Your task to perform on an android device: open sync settings in chrome Image 0: 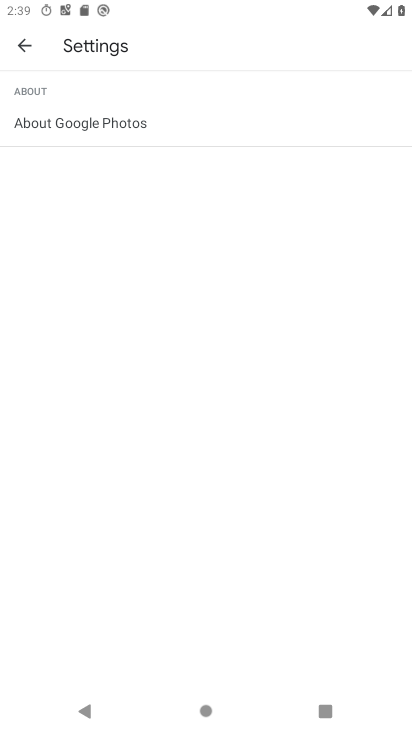
Step 0: press home button
Your task to perform on an android device: open sync settings in chrome Image 1: 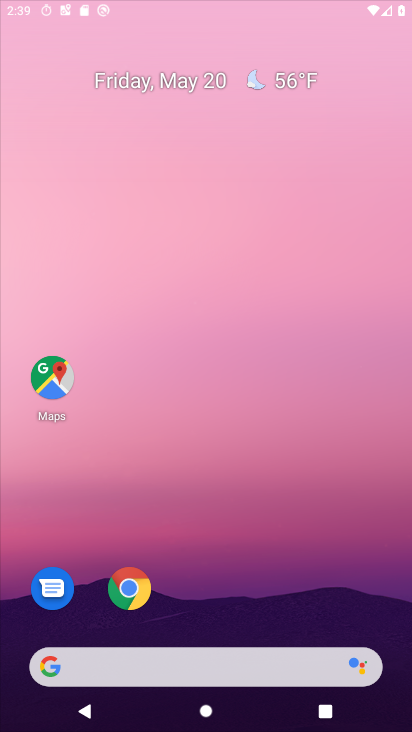
Step 1: click (400, 515)
Your task to perform on an android device: open sync settings in chrome Image 2: 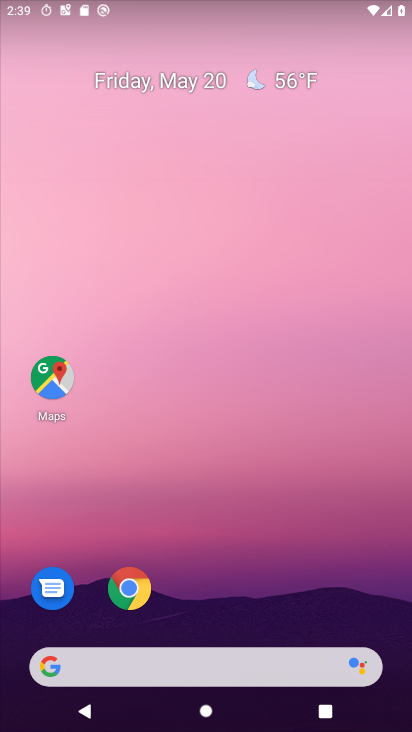
Step 2: click (132, 587)
Your task to perform on an android device: open sync settings in chrome Image 3: 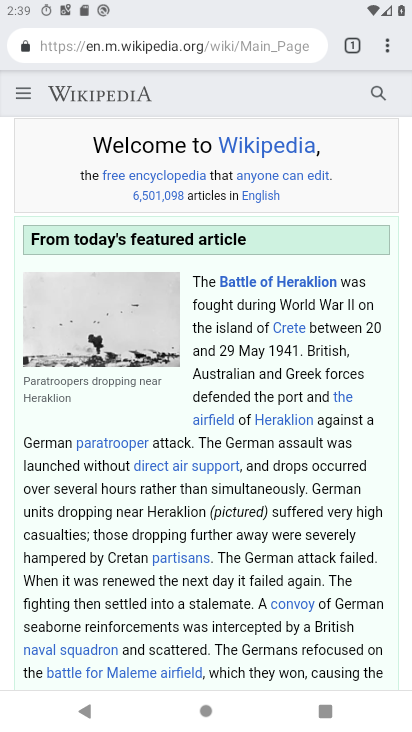
Step 3: click (393, 40)
Your task to perform on an android device: open sync settings in chrome Image 4: 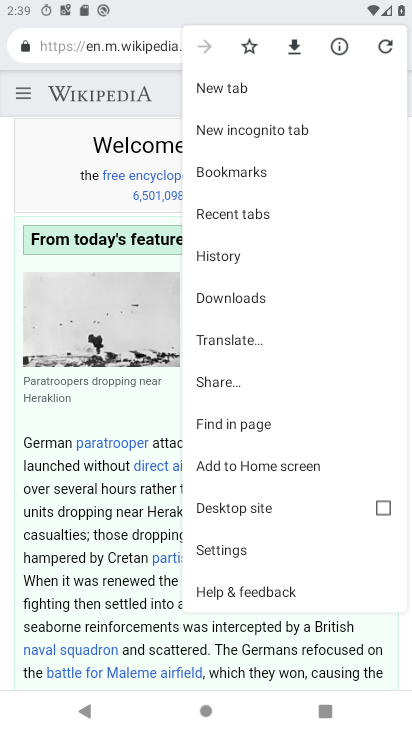
Step 4: click (220, 556)
Your task to perform on an android device: open sync settings in chrome Image 5: 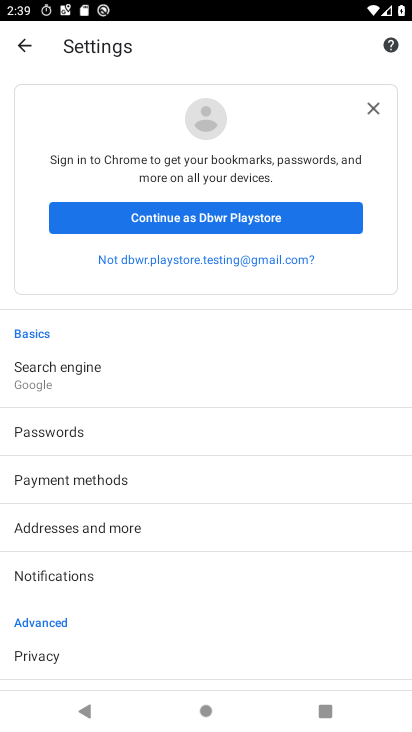
Step 5: drag from (2, 689) to (126, 216)
Your task to perform on an android device: open sync settings in chrome Image 6: 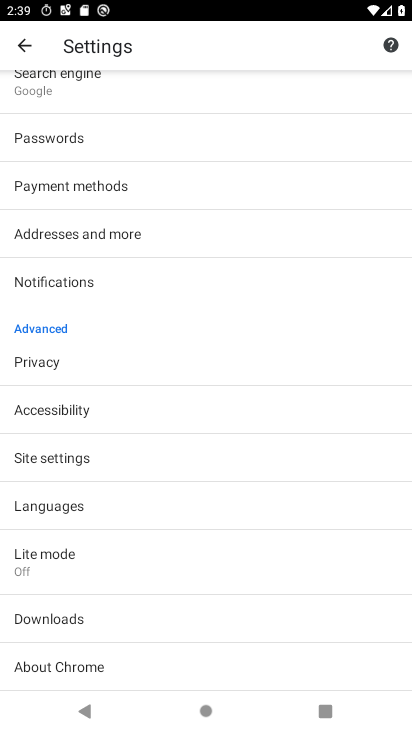
Step 6: drag from (13, 692) to (75, 307)
Your task to perform on an android device: open sync settings in chrome Image 7: 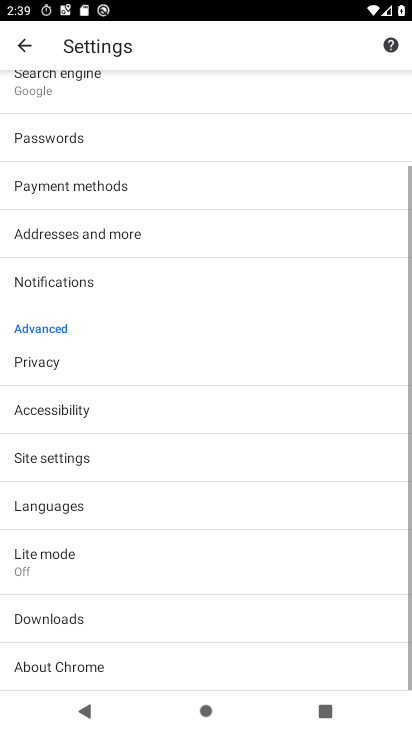
Step 7: click (58, 459)
Your task to perform on an android device: open sync settings in chrome Image 8: 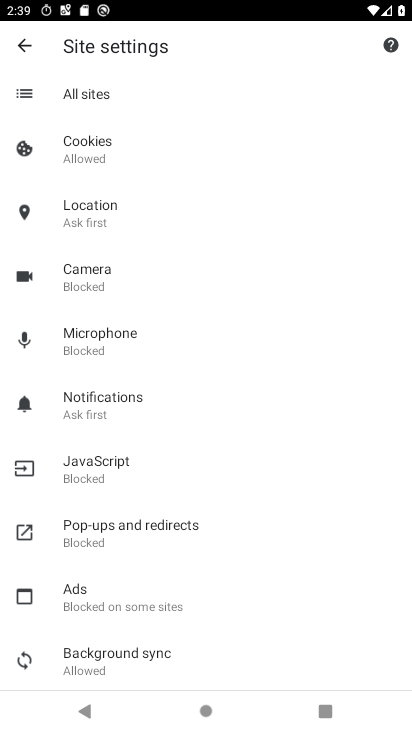
Step 8: click (143, 647)
Your task to perform on an android device: open sync settings in chrome Image 9: 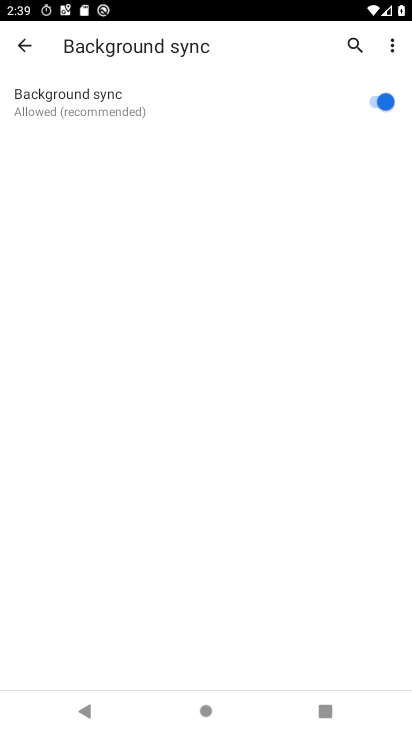
Step 9: task complete